Your task to perform on an android device: toggle translation in the chrome app Image 0: 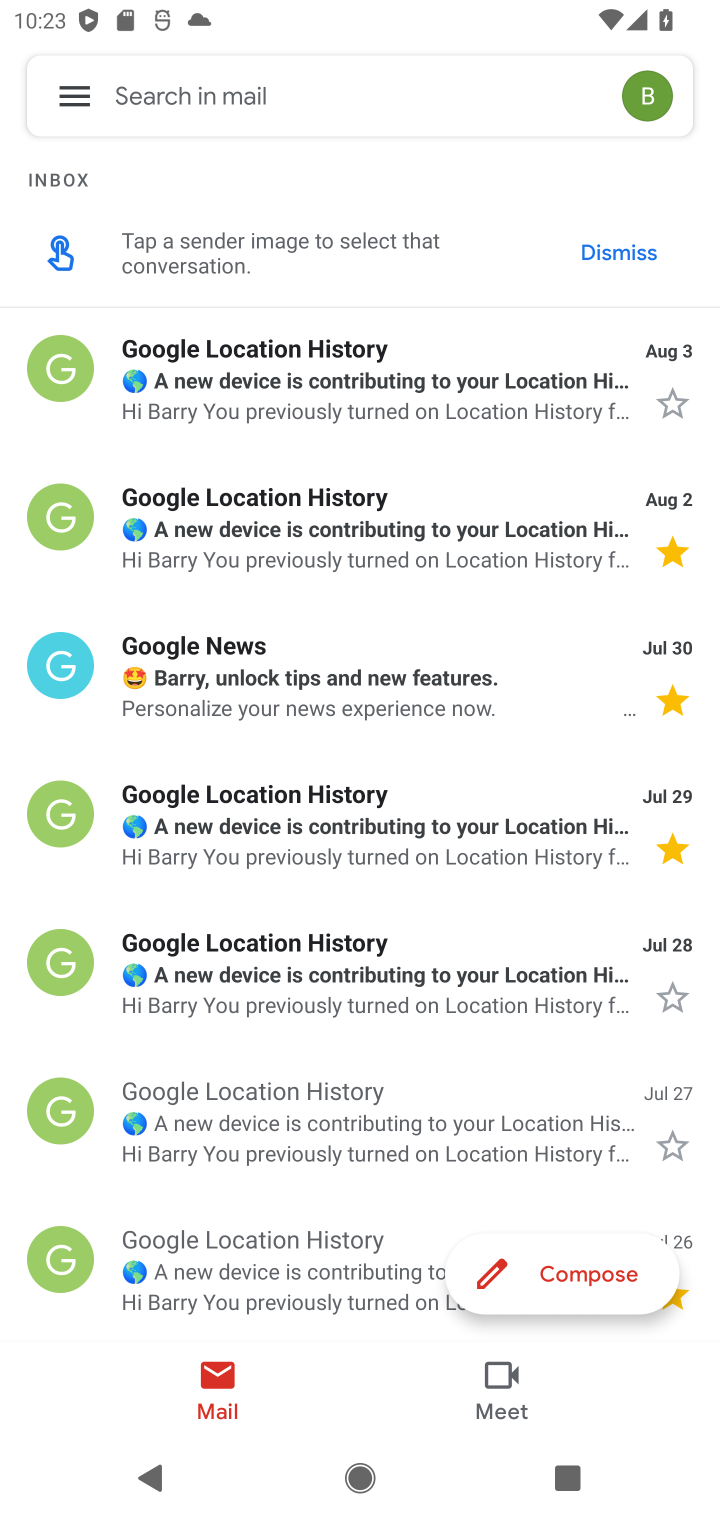
Step 0: press home button
Your task to perform on an android device: toggle translation in the chrome app Image 1: 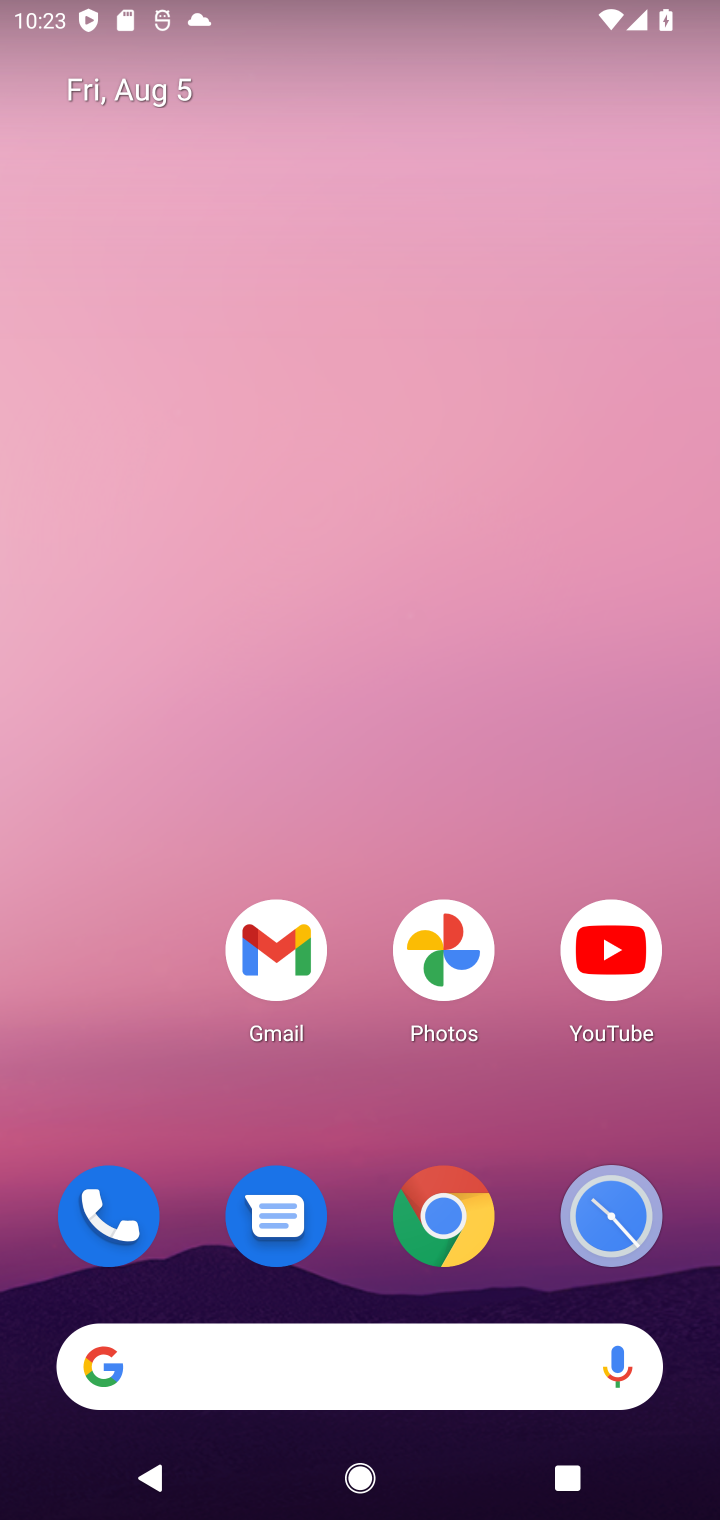
Step 1: drag from (474, 1253) to (482, 148)
Your task to perform on an android device: toggle translation in the chrome app Image 2: 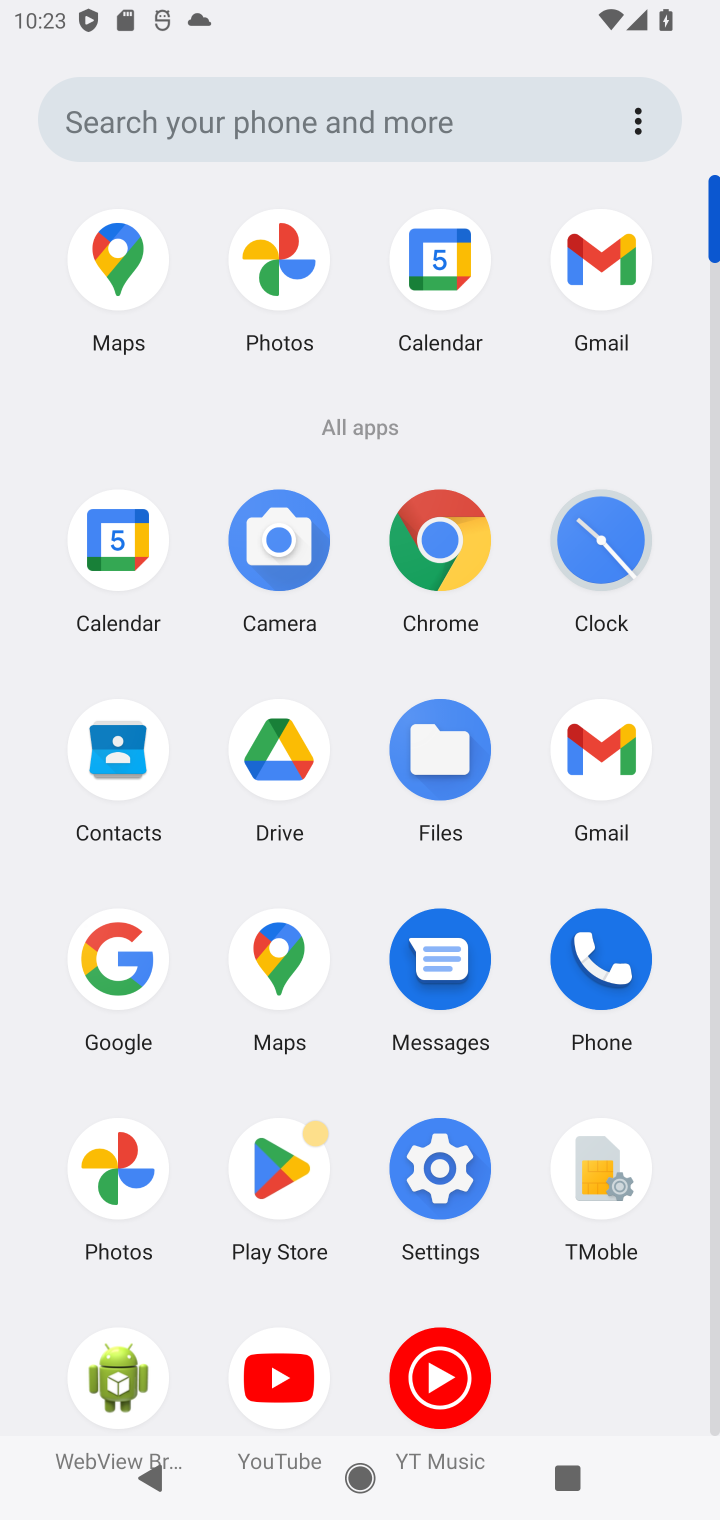
Step 2: click (439, 544)
Your task to perform on an android device: toggle translation in the chrome app Image 3: 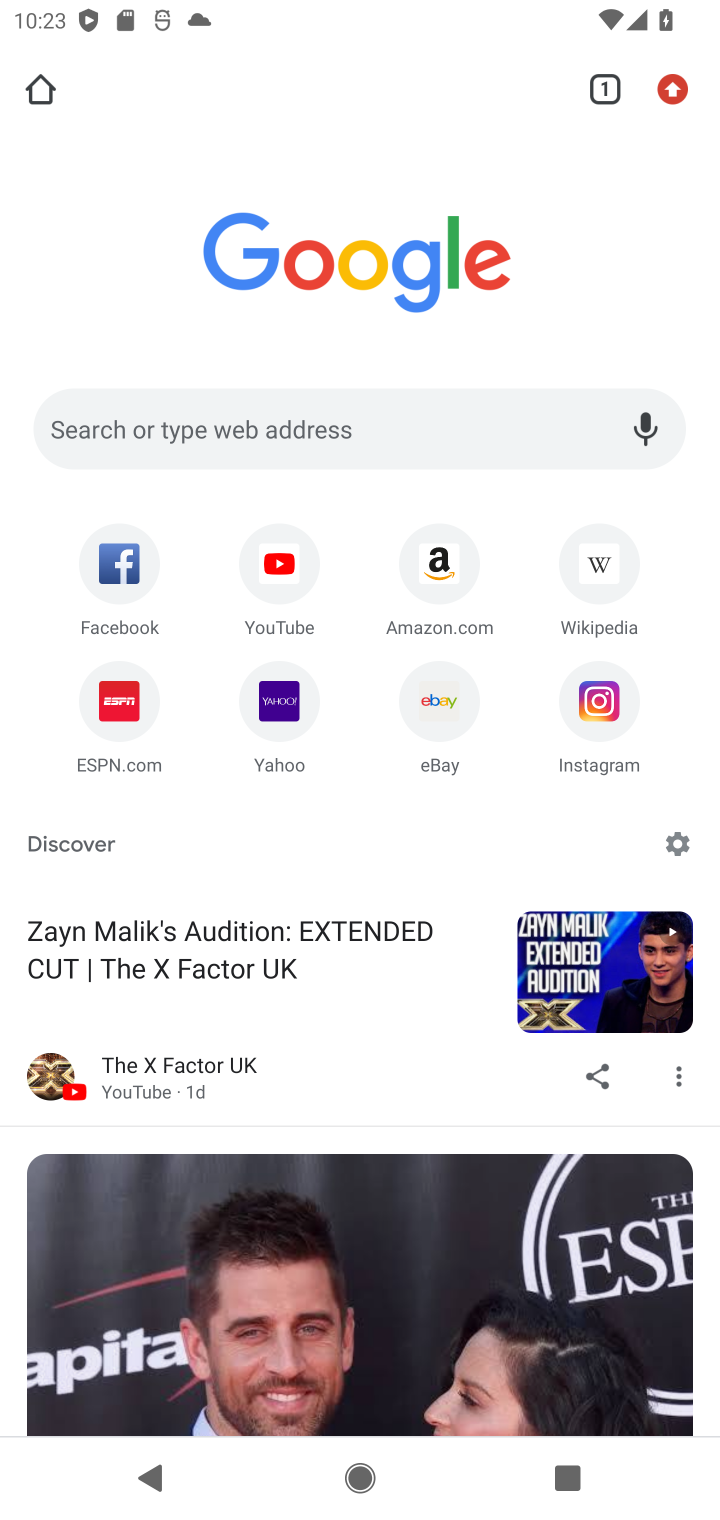
Step 3: click (661, 79)
Your task to perform on an android device: toggle translation in the chrome app Image 4: 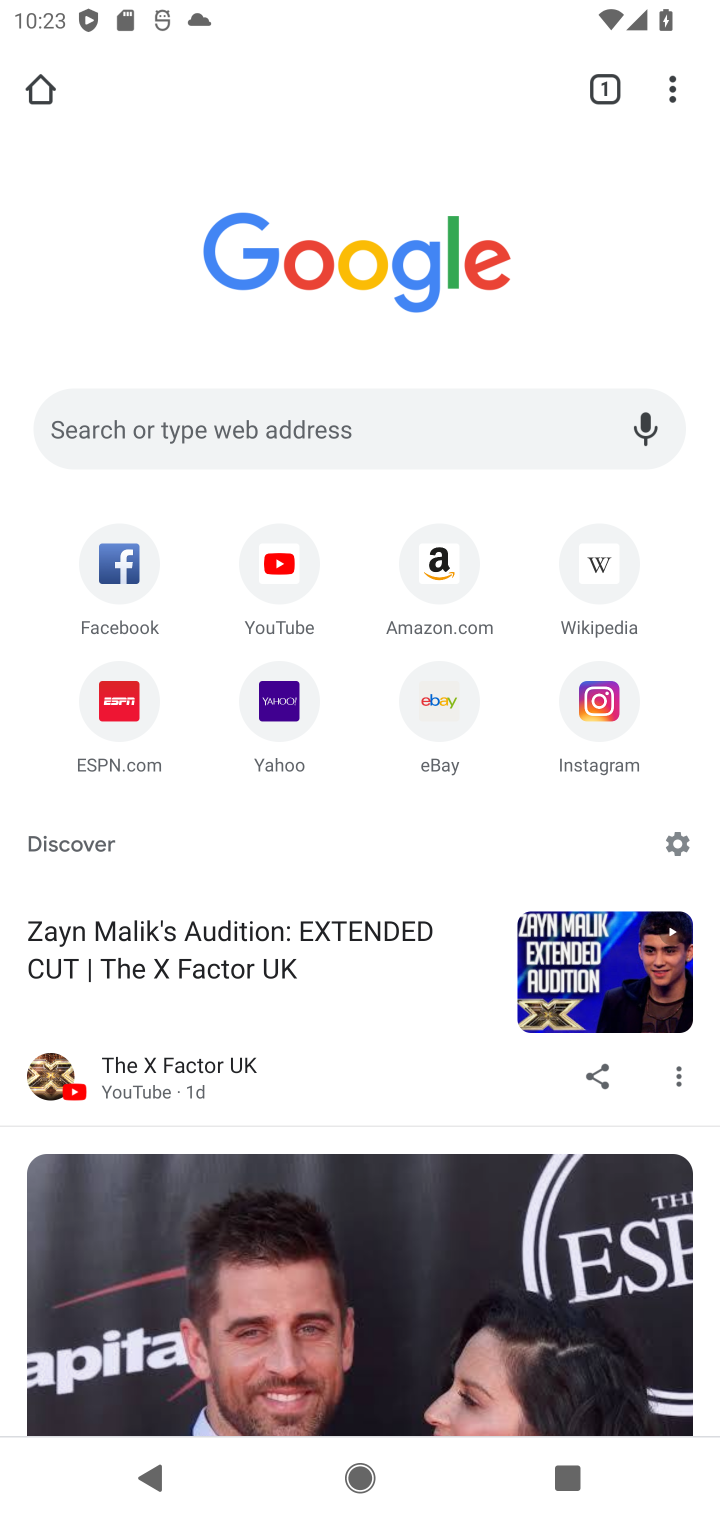
Step 4: click (672, 86)
Your task to perform on an android device: toggle translation in the chrome app Image 5: 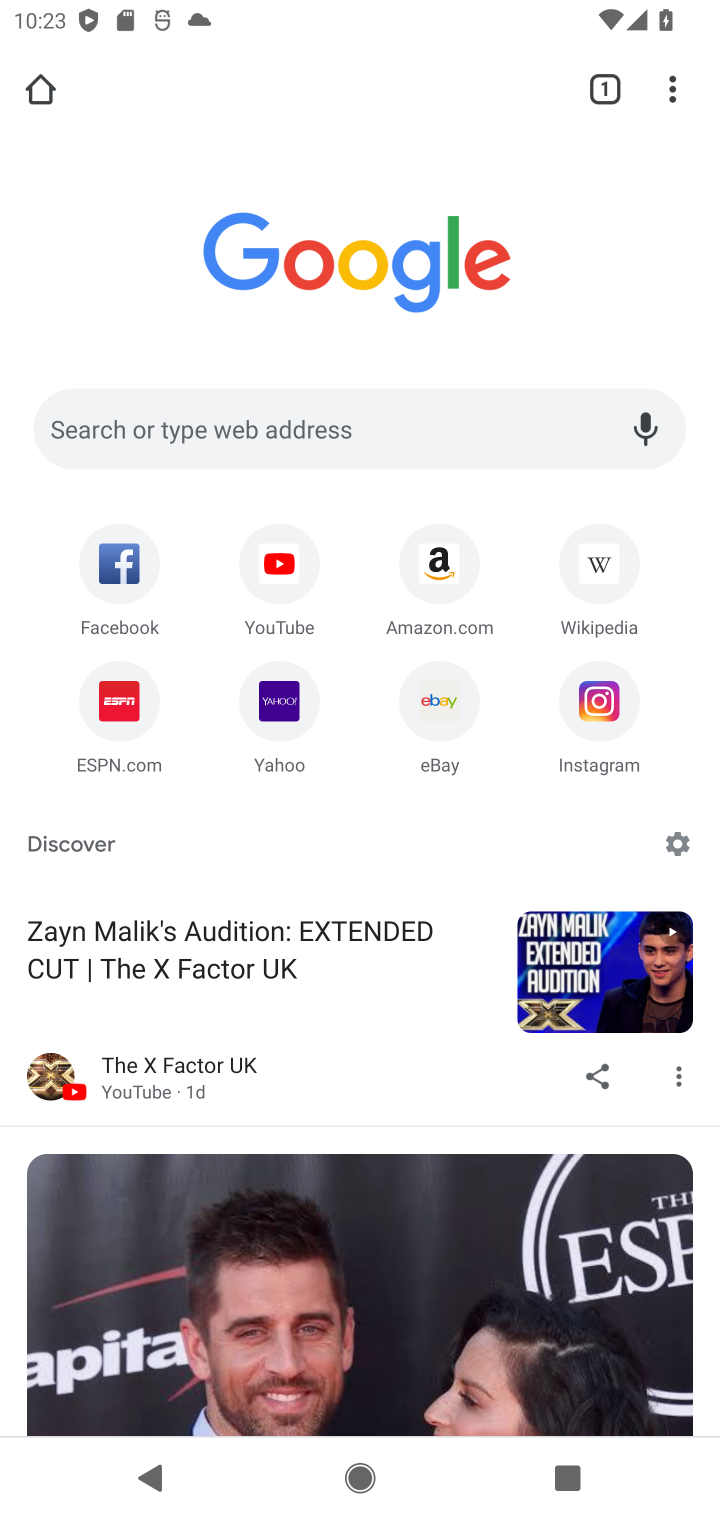
Step 5: drag from (669, 71) to (417, 903)
Your task to perform on an android device: toggle translation in the chrome app Image 6: 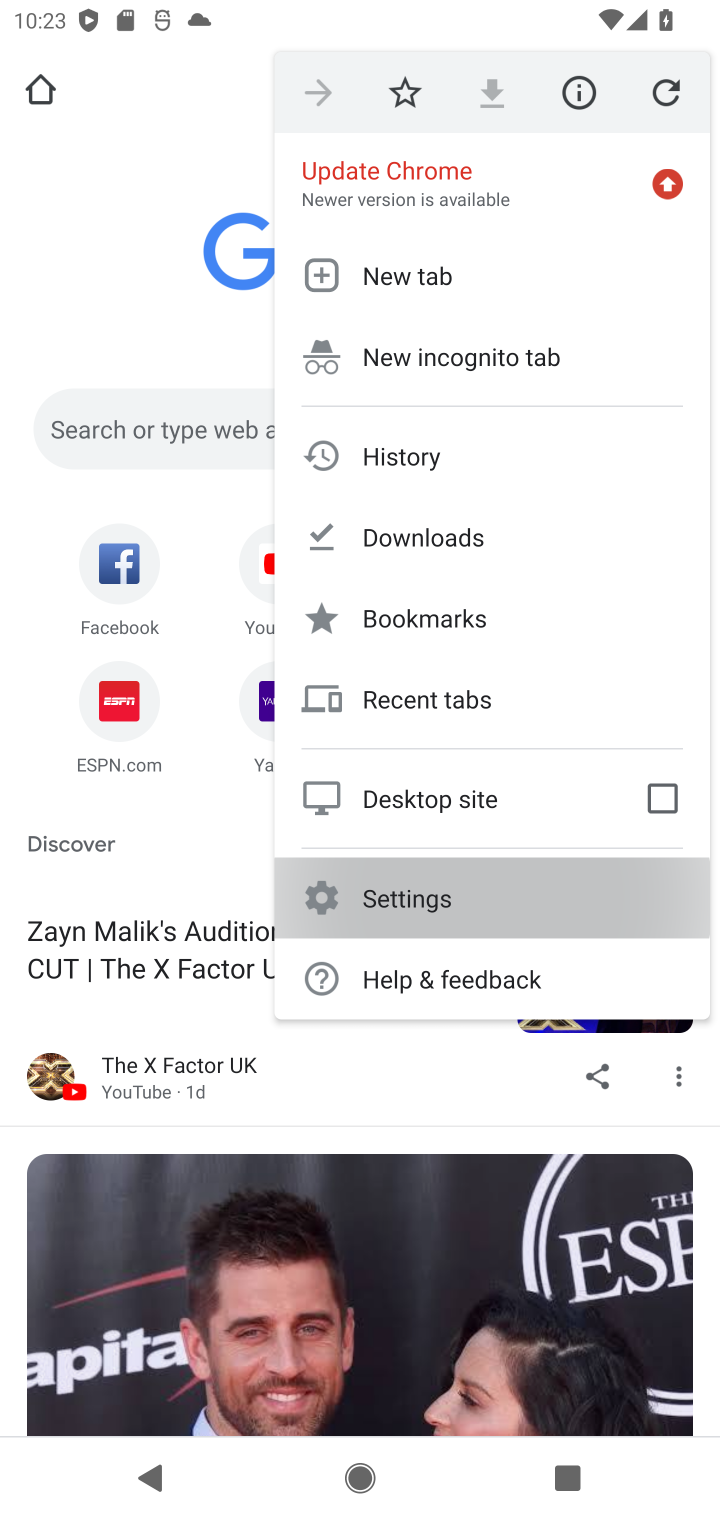
Step 6: click (417, 903)
Your task to perform on an android device: toggle translation in the chrome app Image 7: 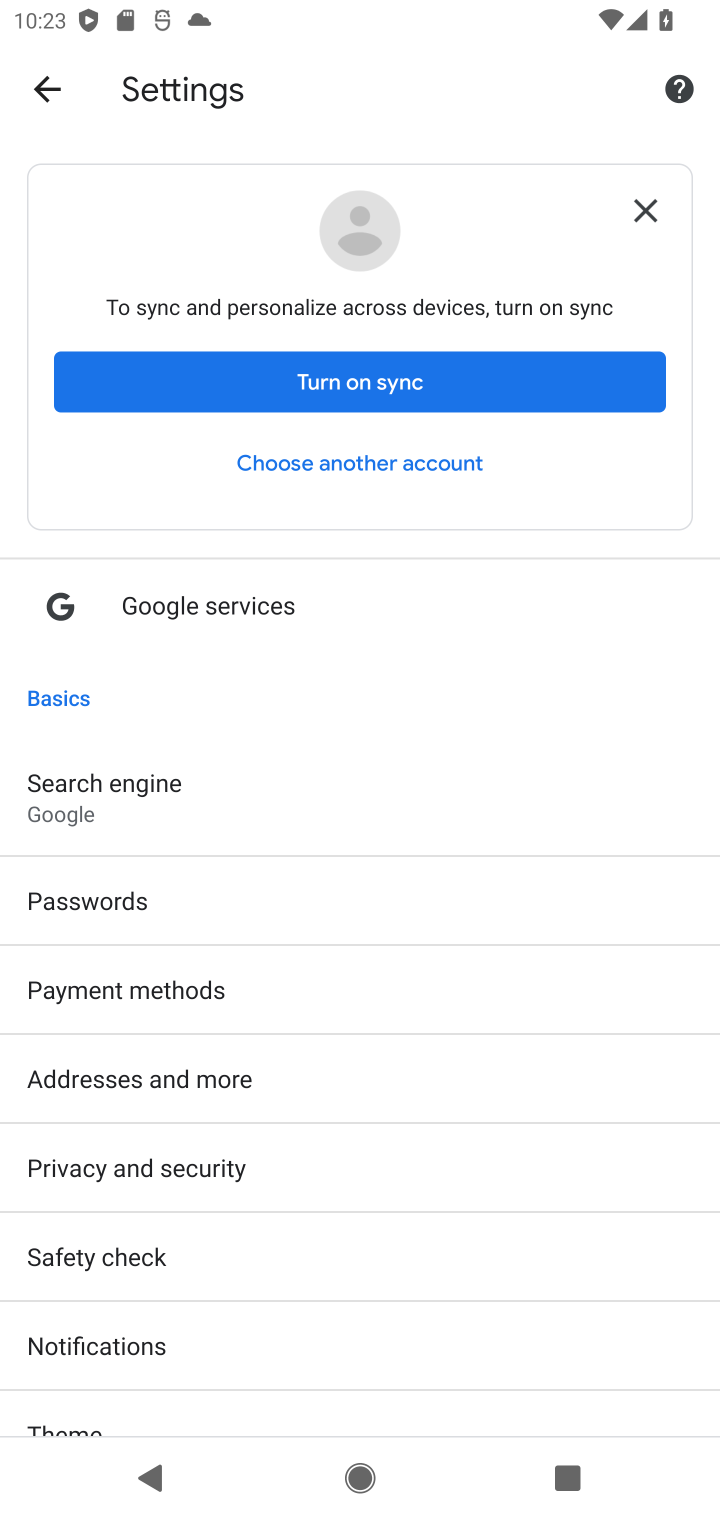
Step 7: drag from (351, 1323) to (471, 262)
Your task to perform on an android device: toggle translation in the chrome app Image 8: 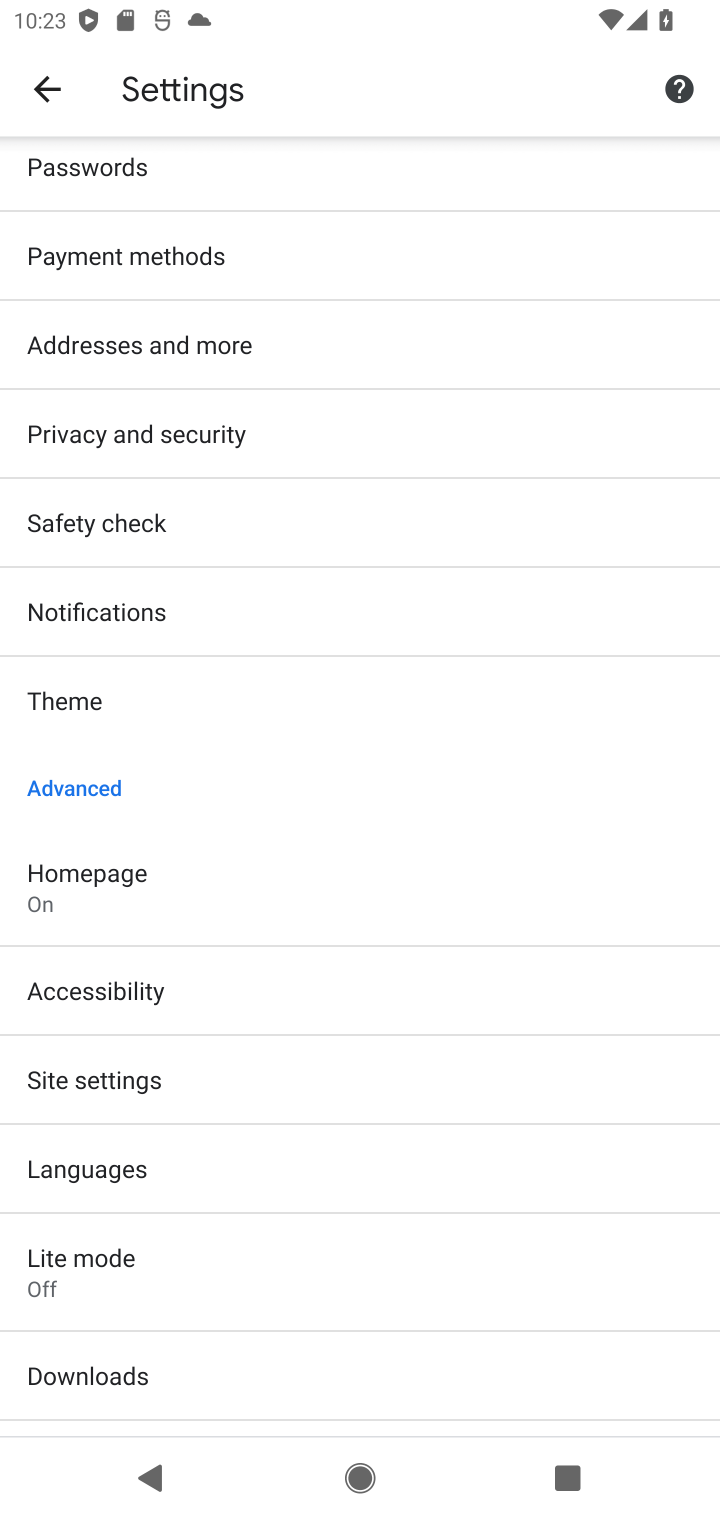
Step 8: click (102, 1154)
Your task to perform on an android device: toggle translation in the chrome app Image 9: 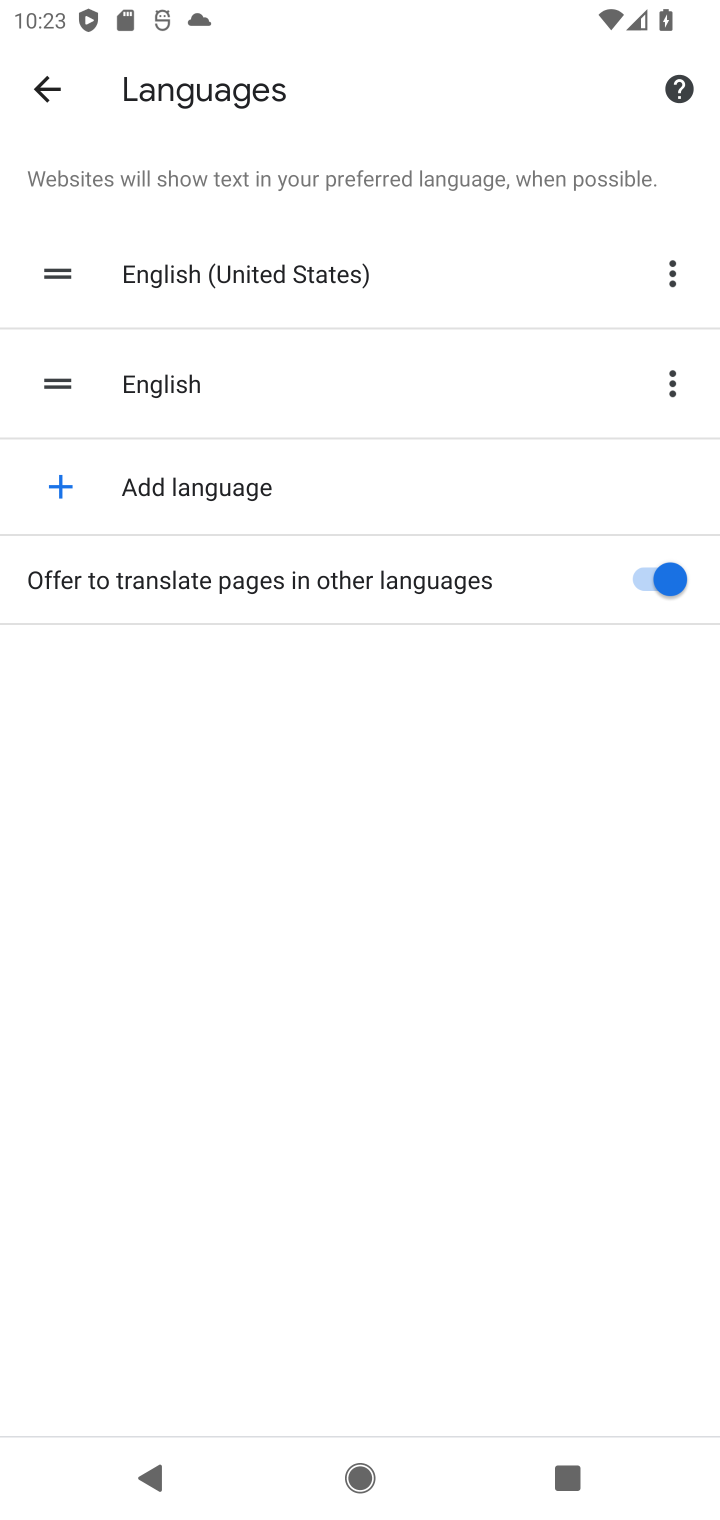
Step 9: click (649, 580)
Your task to perform on an android device: toggle translation in the chrome app Image 10: 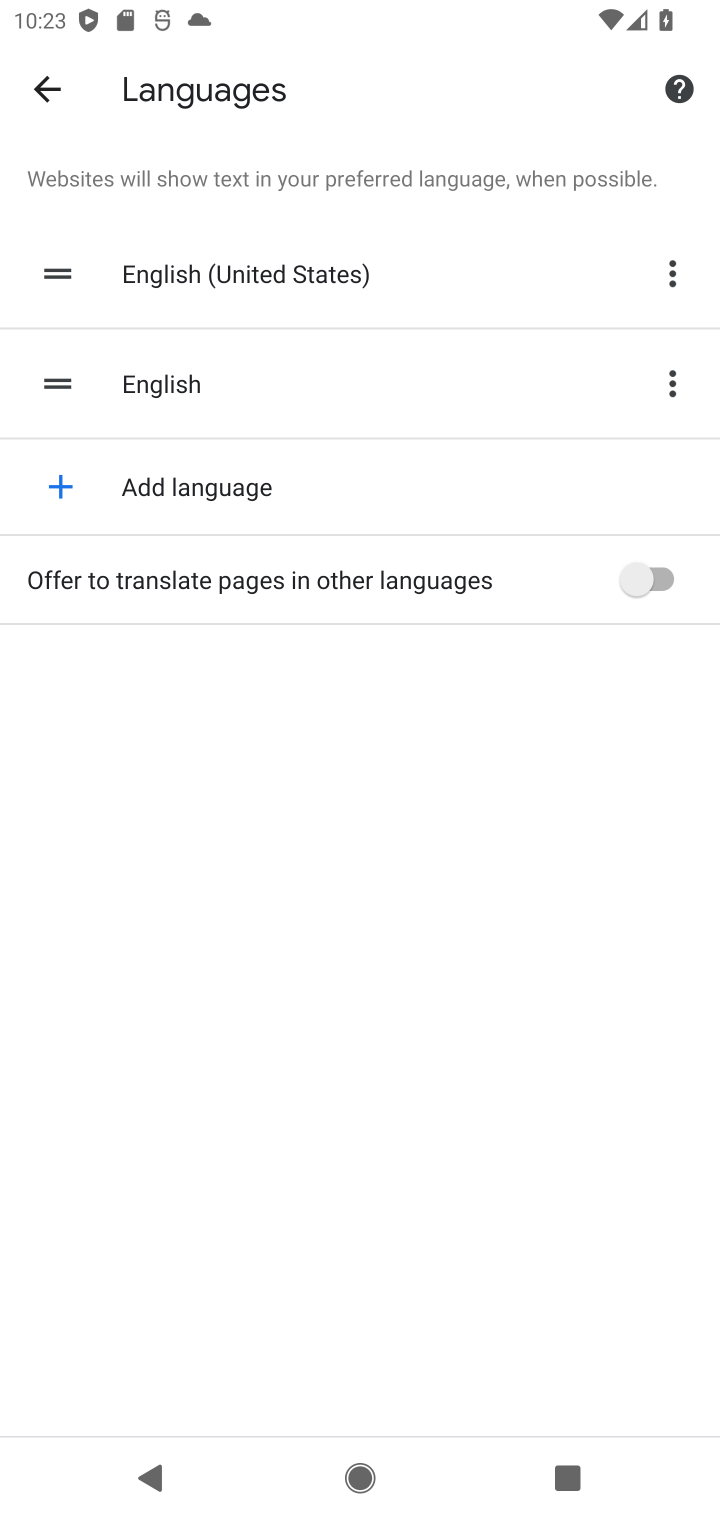
Step 10: task complete